Your task to perform on an android device: Go to Google maps Image 0: 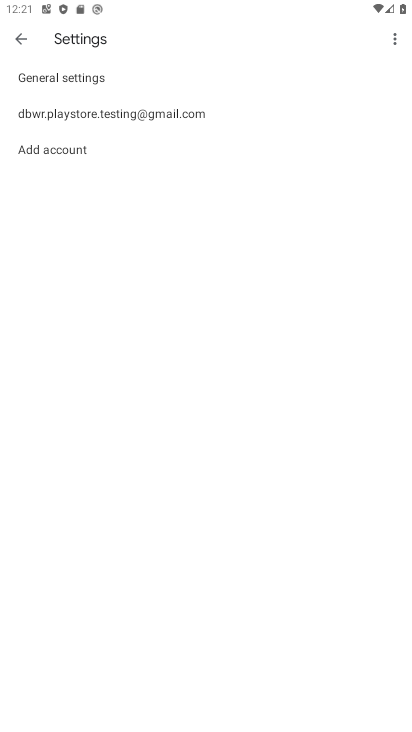
Step 0: press back button
Your task to perform on an android device: Go to Google maps Image 1: 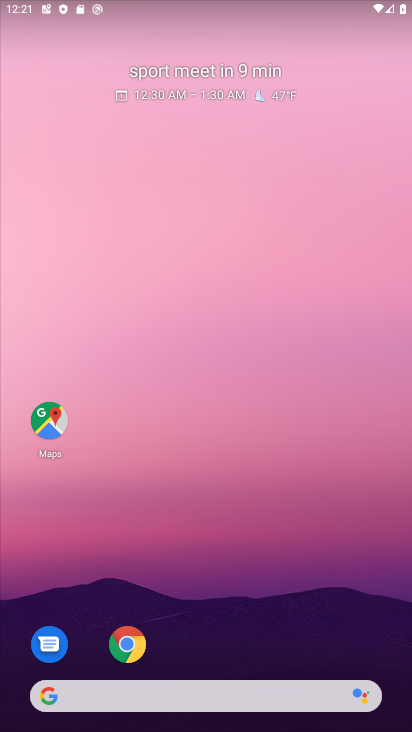
Step 1: click (43, 412)
Your task to perform on an android device: Go to Google maps Image 2: 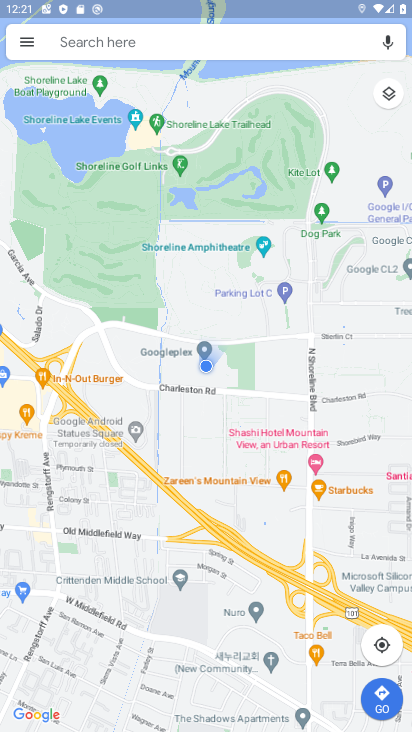
Step 2: task complete